Your task to perform on an android device: search for starred emails in the gmail app Image 0: 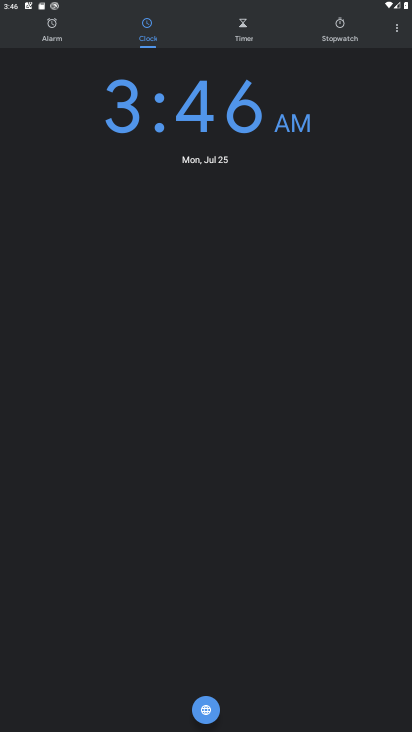
Step 0: press home button
Your task to perform on an android device: search for starred emails in the gmail app Image 1: 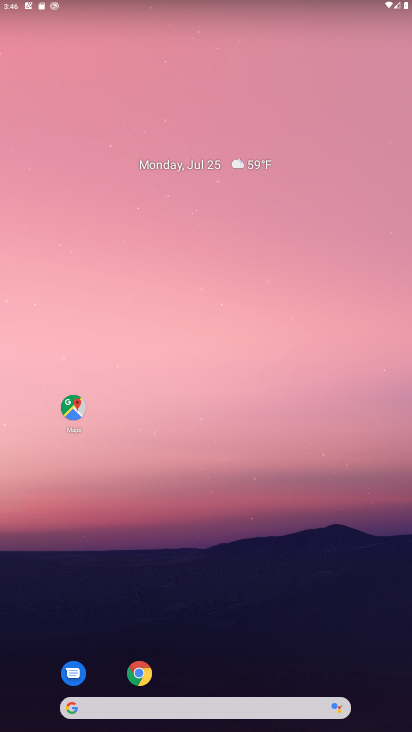
Step 1: drag from (238, 536) to (214, 233)
Your task to perform on an android device: search for starred emails in the gmail app Image 2: 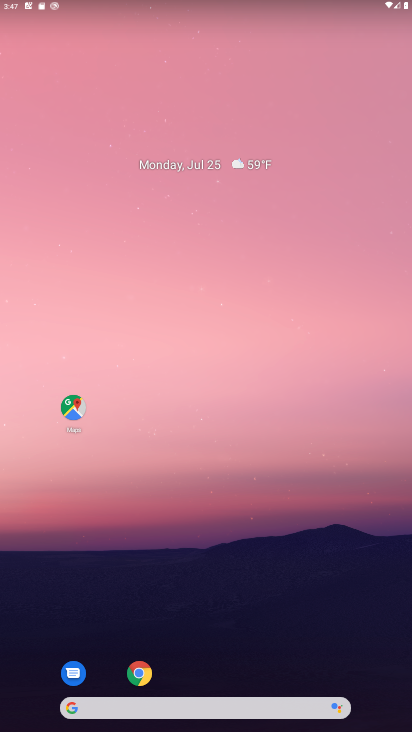
Step 2: drag from (266, 678) to (195, 26)
Your task to perform on an android device: search for starred emails in the gmail app Image 3: 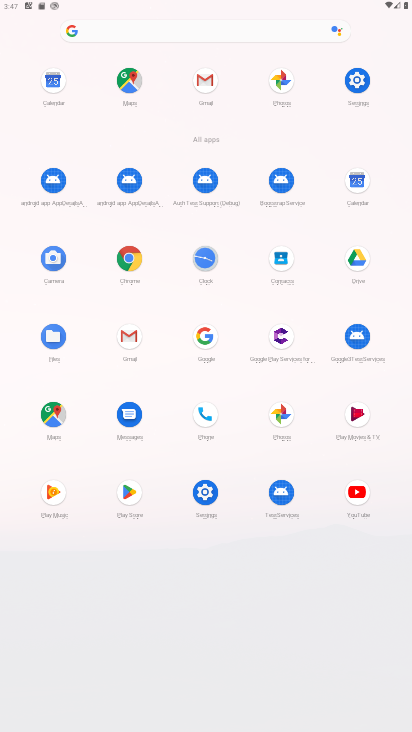
Step 3: click (131, 339)
Your task to perform on an android device: search for starred emails in the gmail app Image 4: 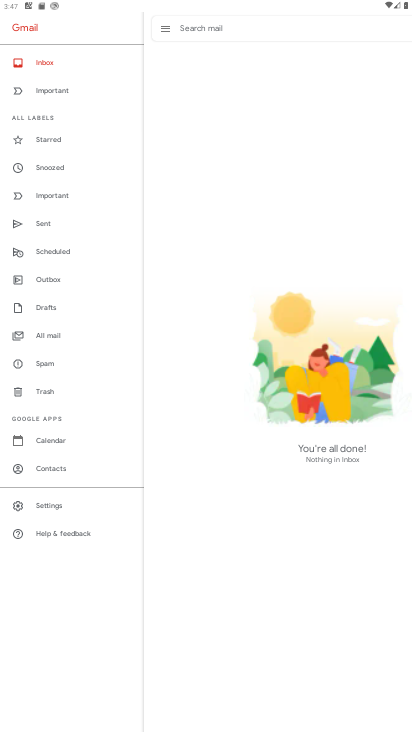
Step 4: click (62, 136)
Your task to perform on an android device: search for starred emails in the gmail app Image 5: 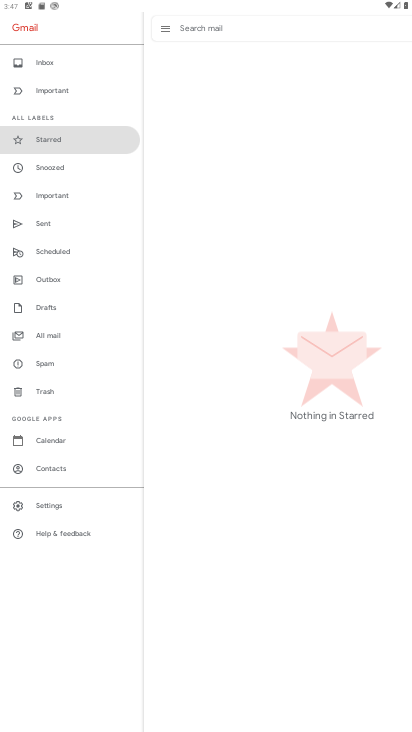
Step 5: task complete